Your task to perform on an android device: uninstall "Nova Launcher" Image 0: 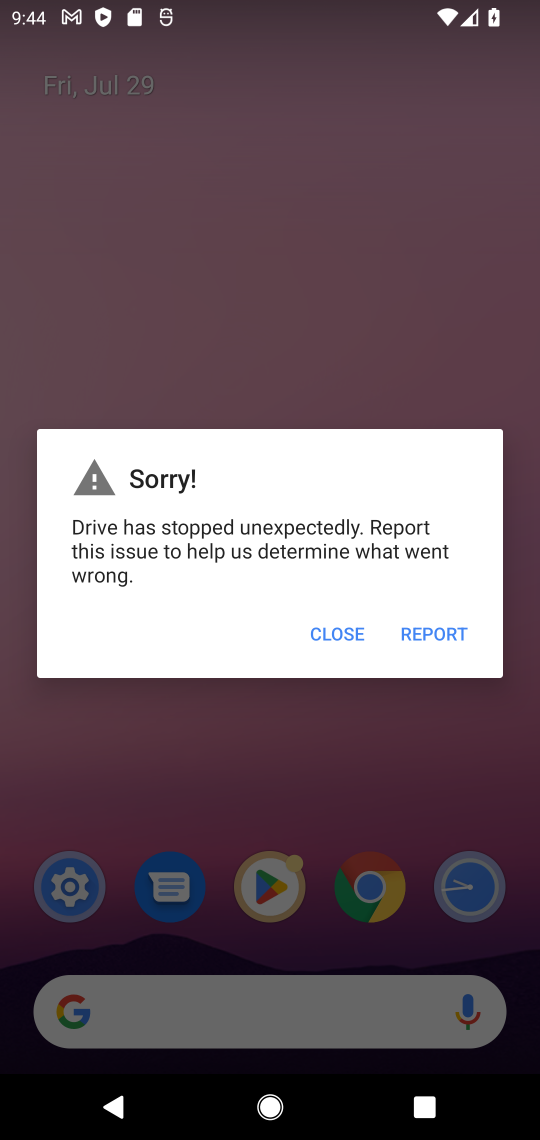
Step 0: press home button
Your task to perform on an android device: uninstall "Nova Launcher" Image 1: 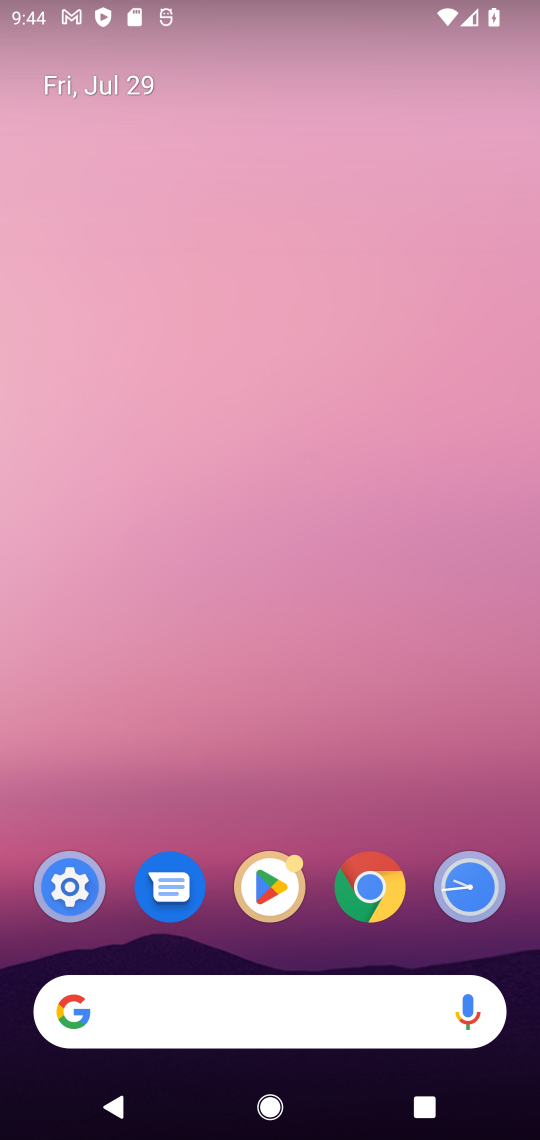
Step 1: click (271, 913)
Your task to perform on an android device: uninstall "Nova Launcher" Image 2: 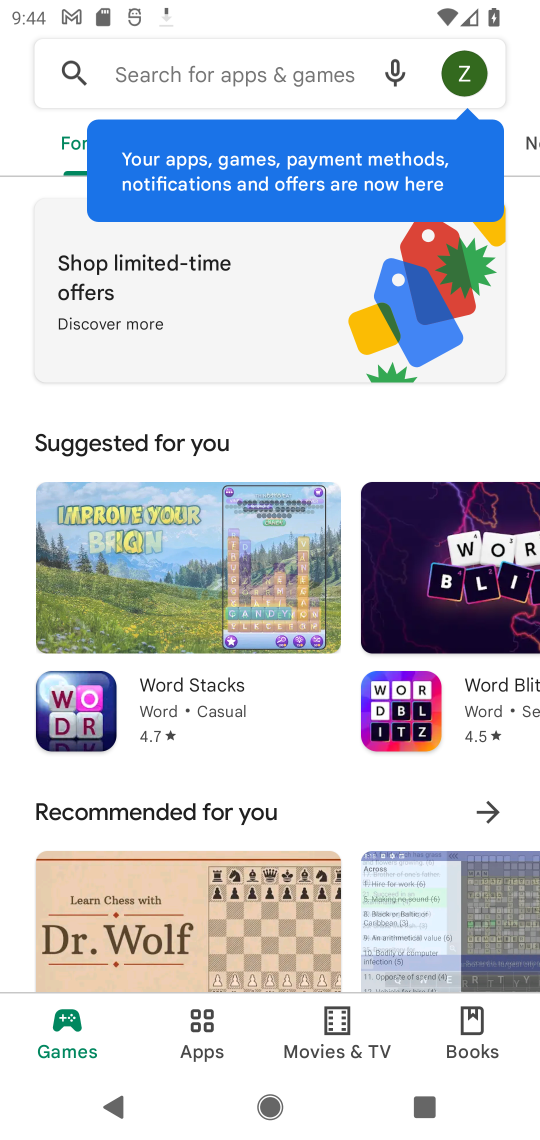
Step 2: click (281, 72)
Your task to perform on an android device: uninstall "Nova Launcher" Image 3: 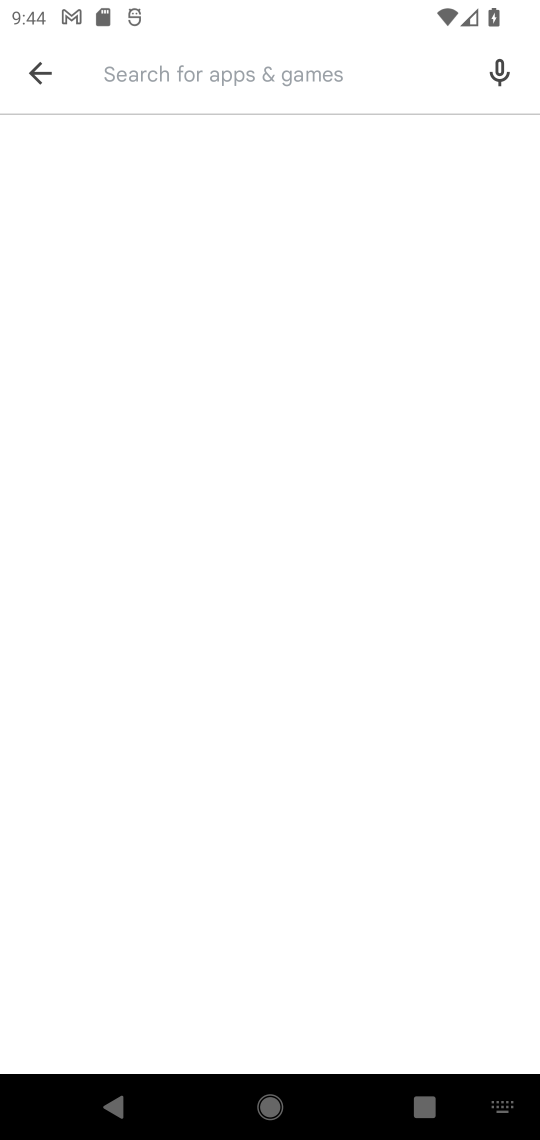
Step 3: type "nova launcher"
Your task to perform on an android device: uninstall "Nova Launcher" Image 4: 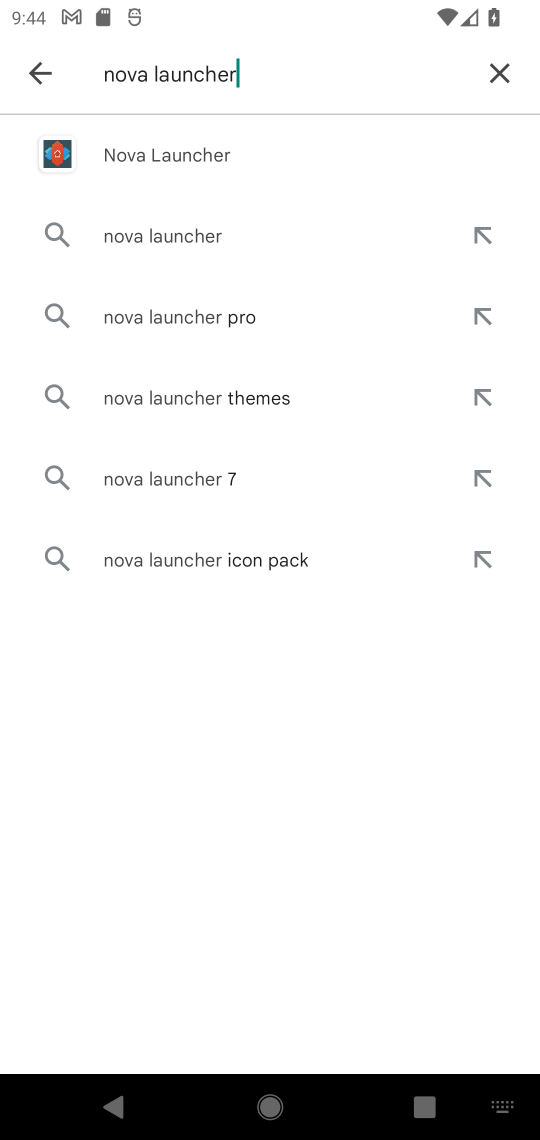
Step 4: click (195, 154)
Your task to perform on an android device: uninstall "Nova Launcher" Image 5: 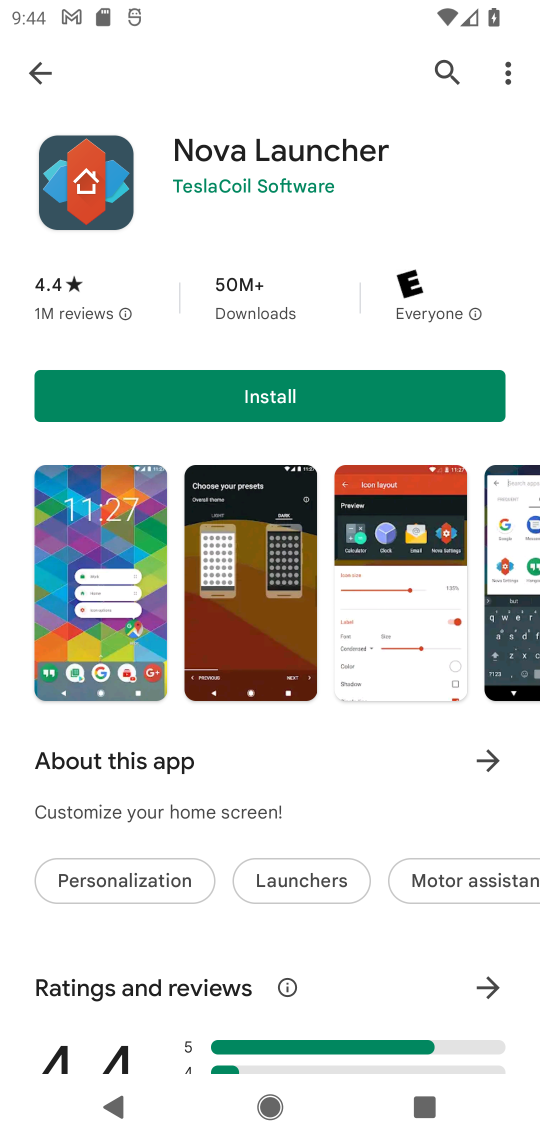
Step 5: task complete